Your task to perform on an android device: Open eBay Image 0: 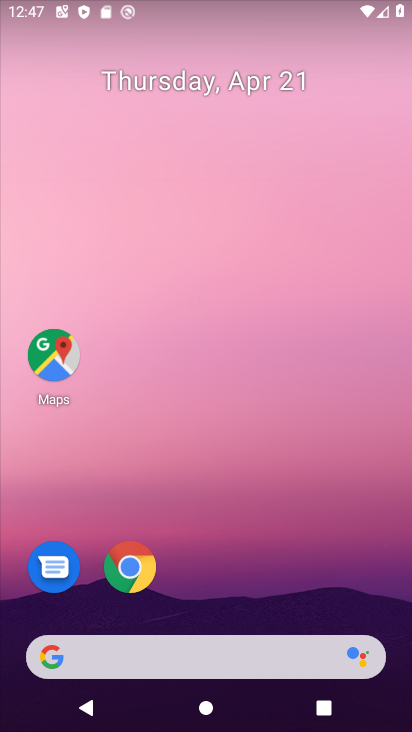
Step 0: drag from (207, 617) to (327, 102)
Your task to perform on an android device: Open eBay Image 1: 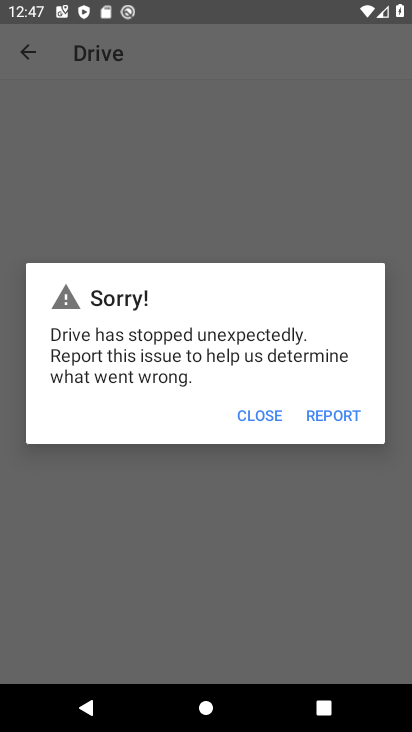
Step 1: click (253, 412)
Your task to perform on an android device: Open eBay Image 2: 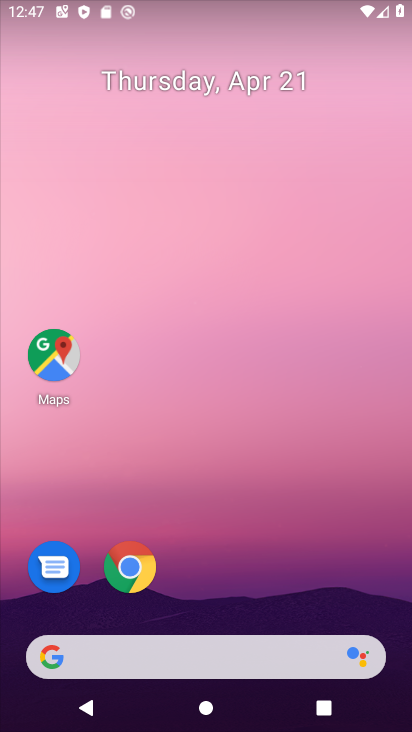
Step 2: click (134, 566)
Your task to perform on an android device: Open eBay Image 3: 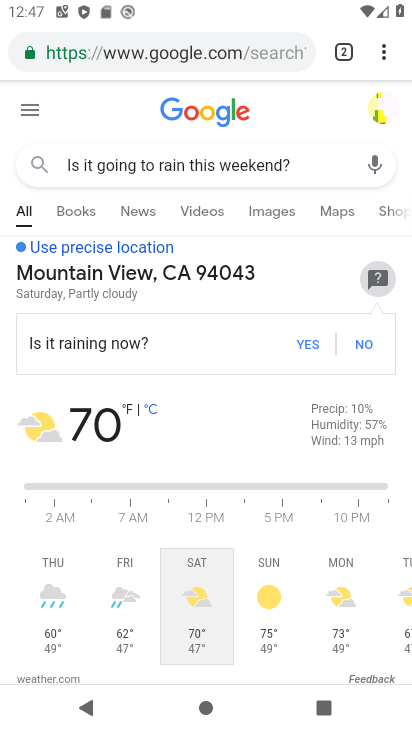
Step 3: click (240, 53)
Your task to perform on an android device: Open eBay Image 4: 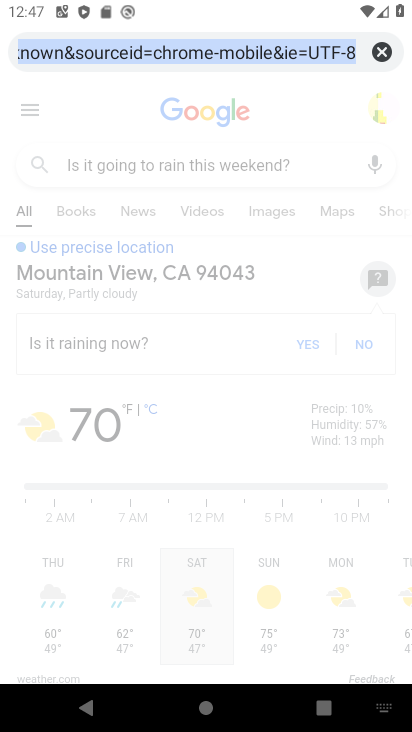
Step 4: click (381, 50)
Your task to perform on an android device: Open eBay Image 5: 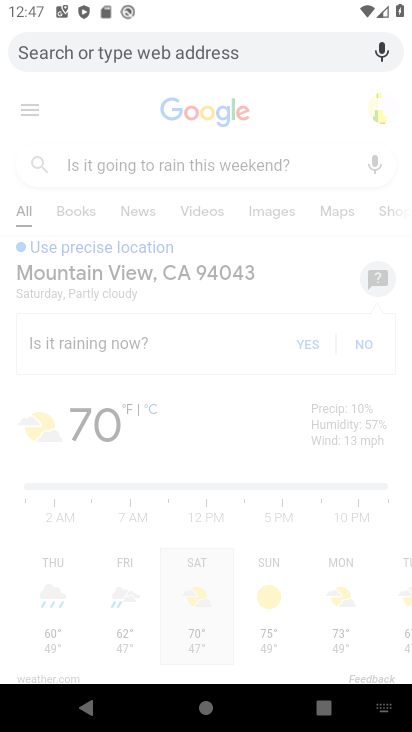
Step 5: click (326, 49)
Your task to perform on an android device: Open eBay Image 6: 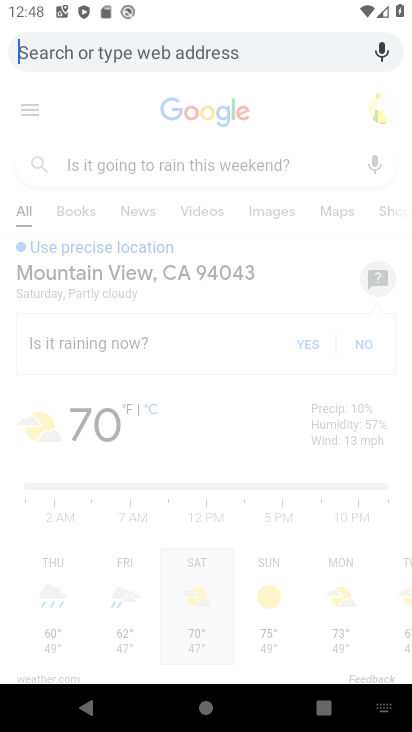
Step 6: type "eBay"
Your task to perform on an android device: Open eBay Image 7: 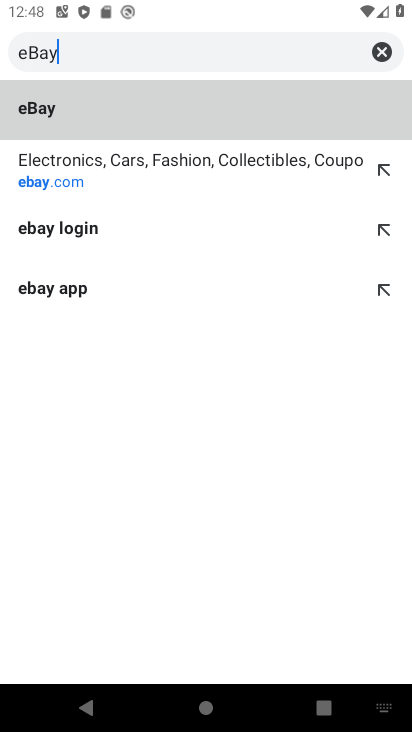
Step 7: click (51, 107)
Your task to perform on an android device: Open eBay Image 8: 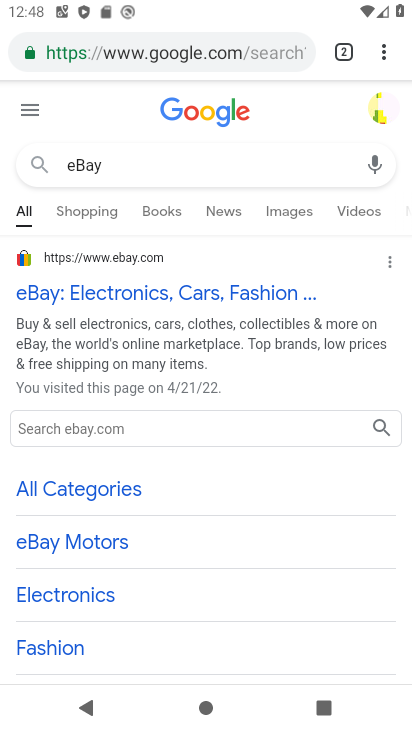
Step 8: click (78, 293)
Your task to perform on an android device: Open eBay Image 9: 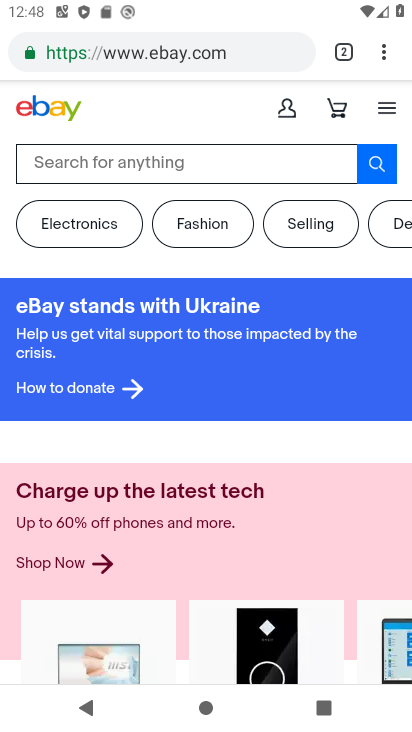
Step 9: task complete